Your task to perform on an android device: Open Amazon Image 0: 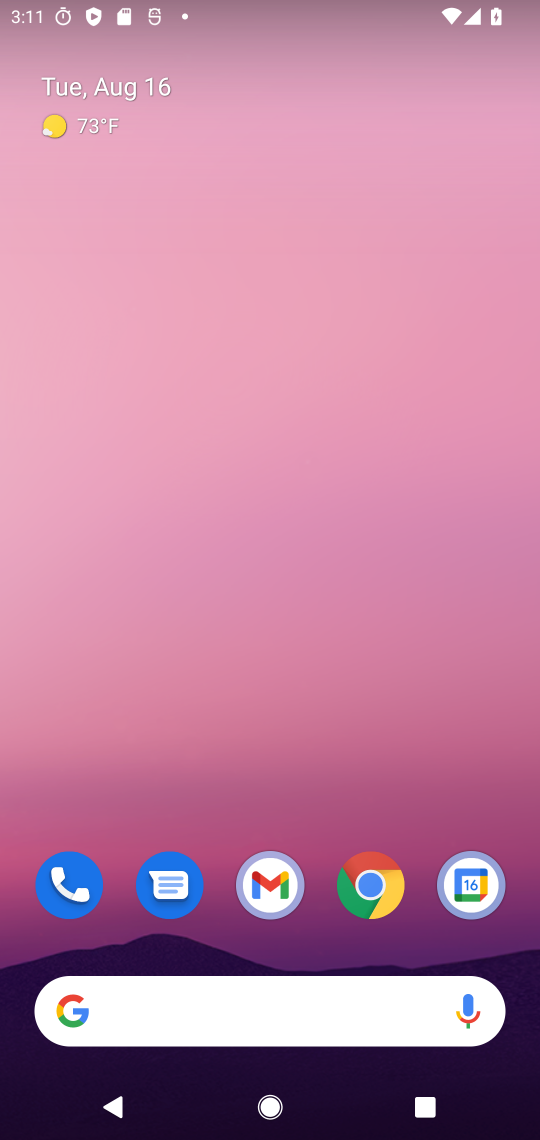
Step 0: drag from (255, 916) to (302, 172)
Your task to perform on an android device: Open Amazon Image 1: 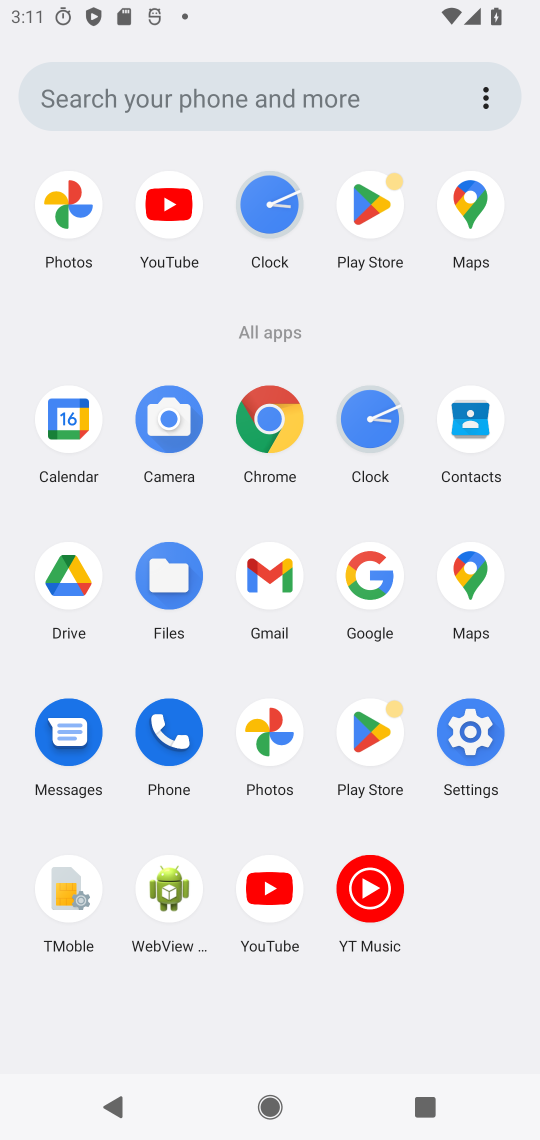
Step 1: click (248, 406)
Your task to perform on an android device: Open Amazon Image 2: 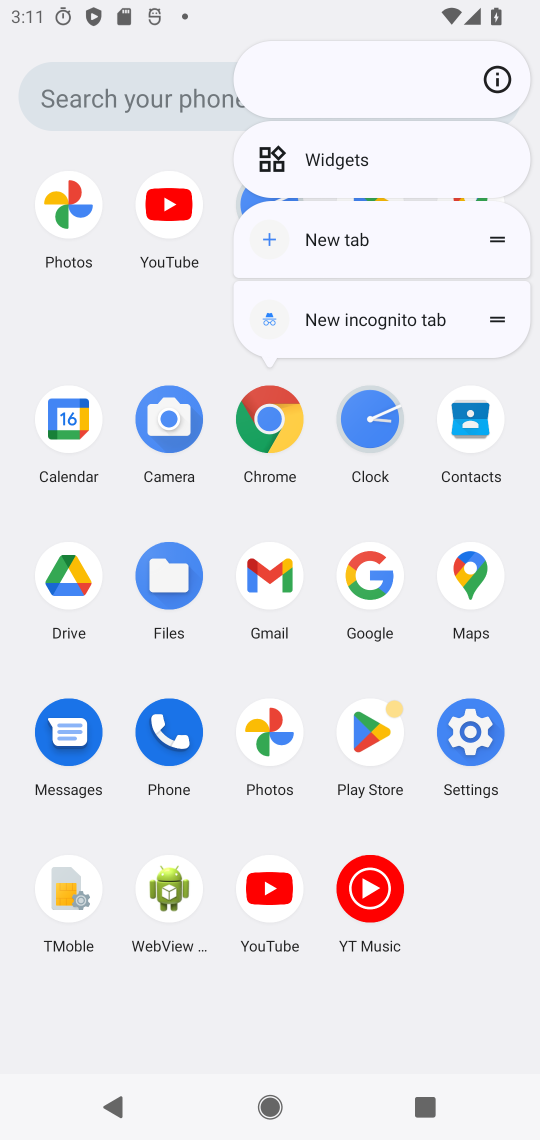
Step 2: click (277, 417)
Your task to perform on an android device: Open Amazon Image 3: 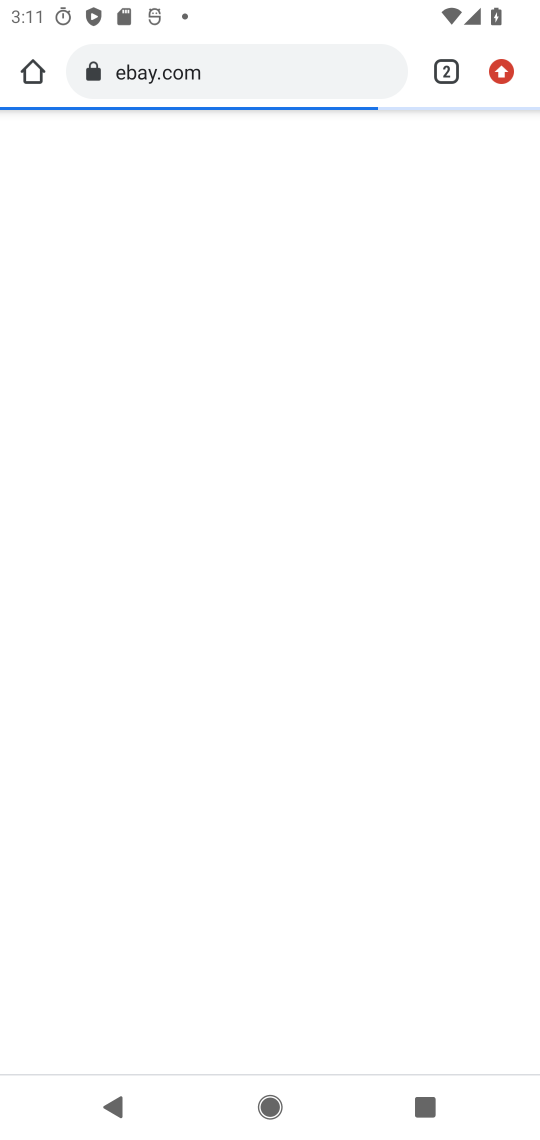
Step 3: click (507, 82)
Your task to perform on an android device: Open Amazon Image 4: 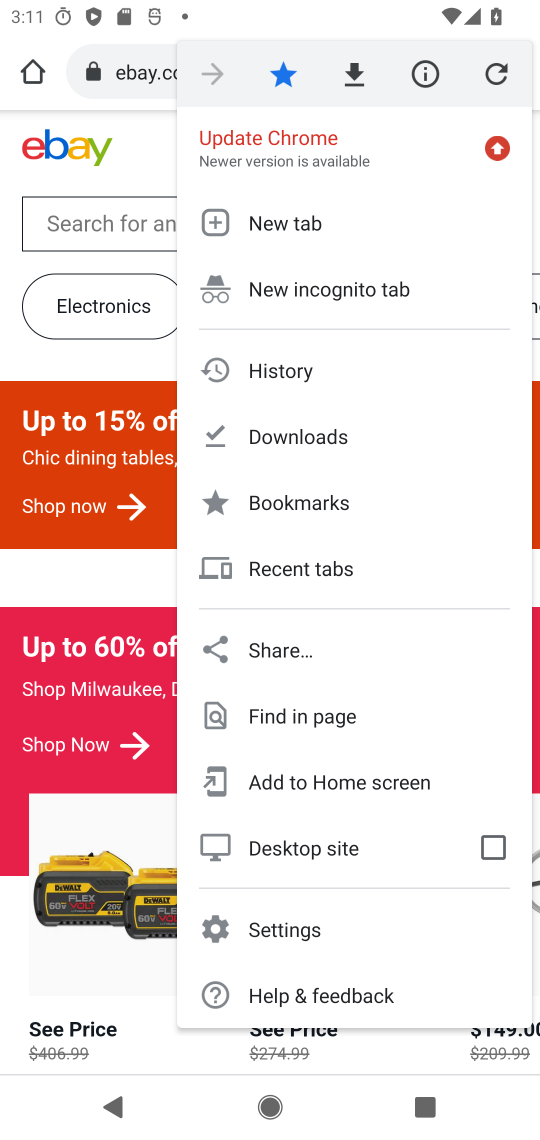
Step 4: click (279, 225)
Your task to perform on an android device: Open Amazon Image 5: 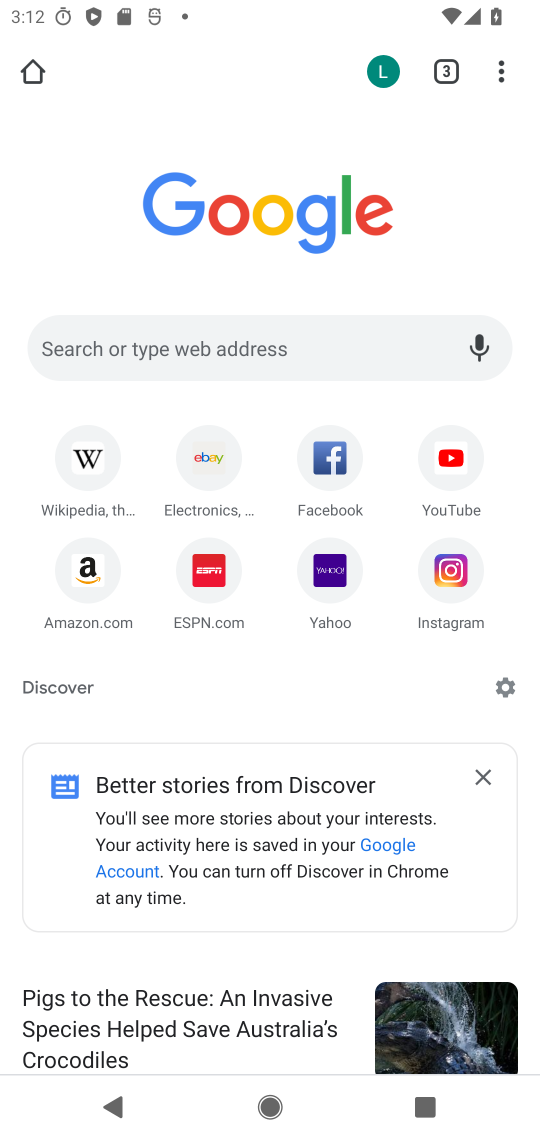
Step 5: click (76, 562)
Your task to perform on an android device: Open Amazon Image 6: 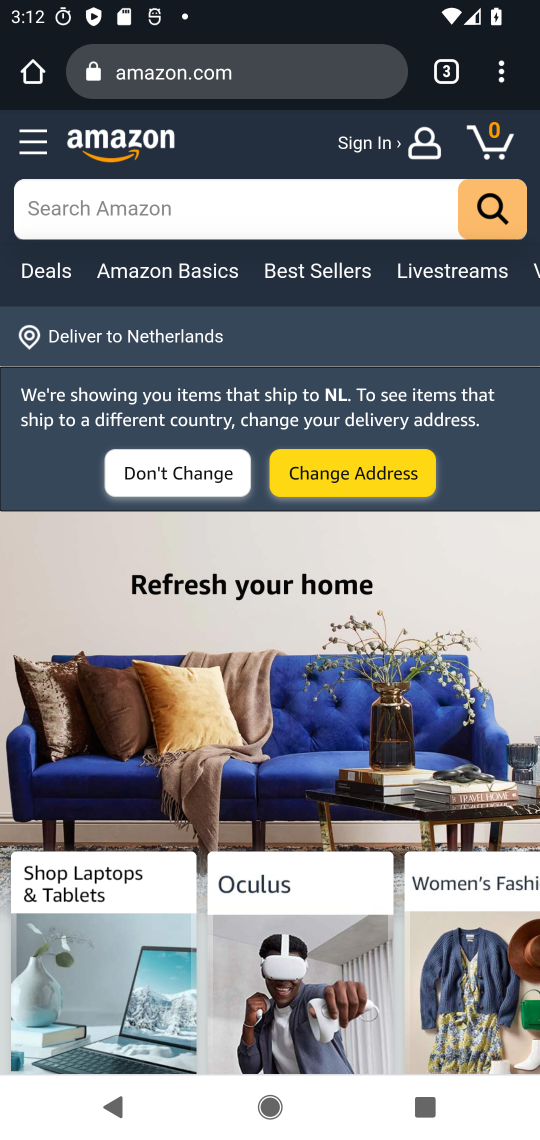
Step 6: task complete